Your task to perform on an android device: check the backup settings in the google photos Image 0: 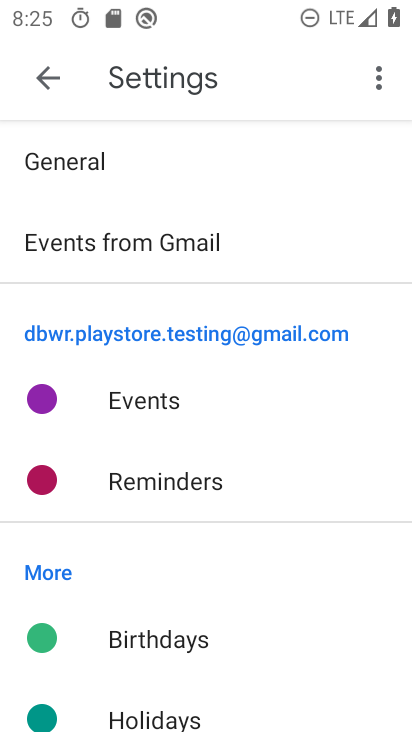
Step 0: press home button
Your task to perform on an android device: check the backup settings in the google photos Image 1: 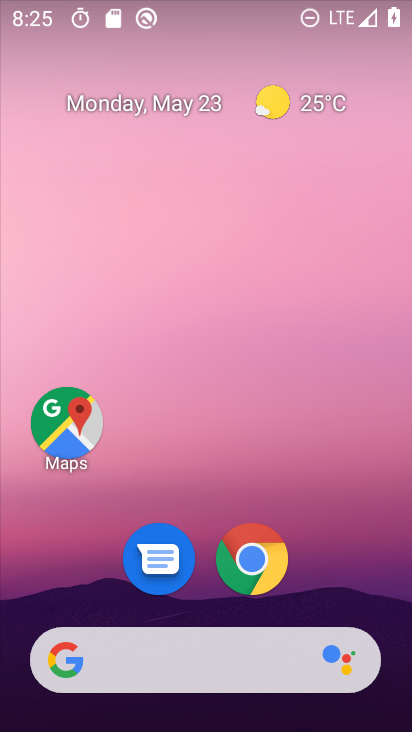
Step 1: drag from (381, 662) to (247, 64)
Your task to perform on an android device: check the backup settings in the google photos Image 2: 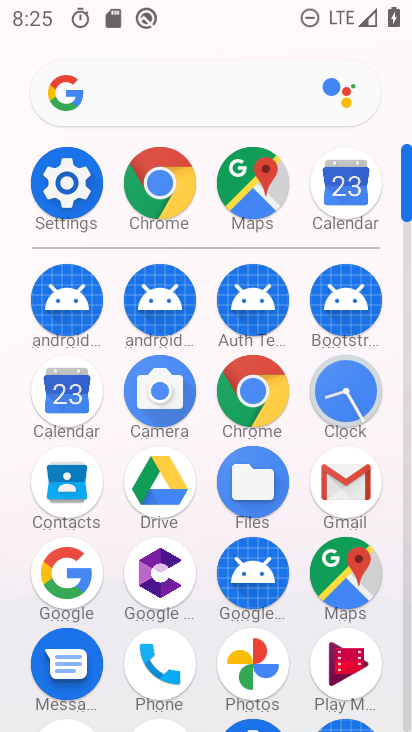
Step 2: click (261, 658)
Your task to perform on an android device: check the backup settings in the google photos Image 3: 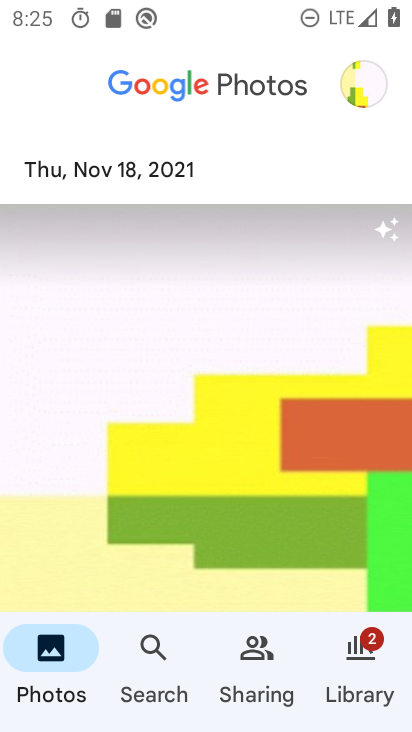
Step 3: click (370, 104)
Your task to perform on an android device: check the backup settings in the google photos Image 4: 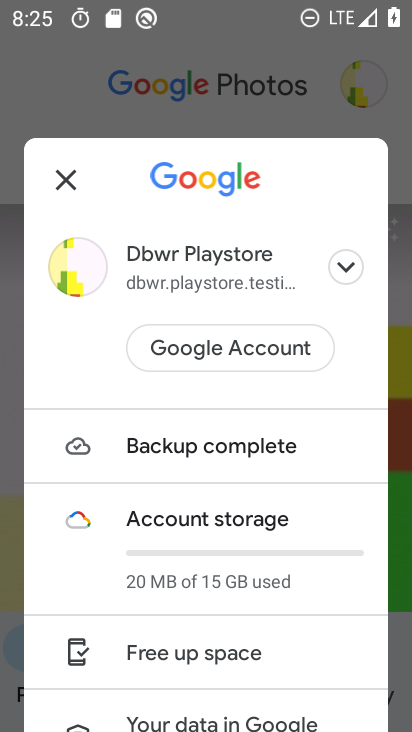
Step 4: click (192, 471)
Your task to perform on an android device: check the backup settings in the google photos Image 5: 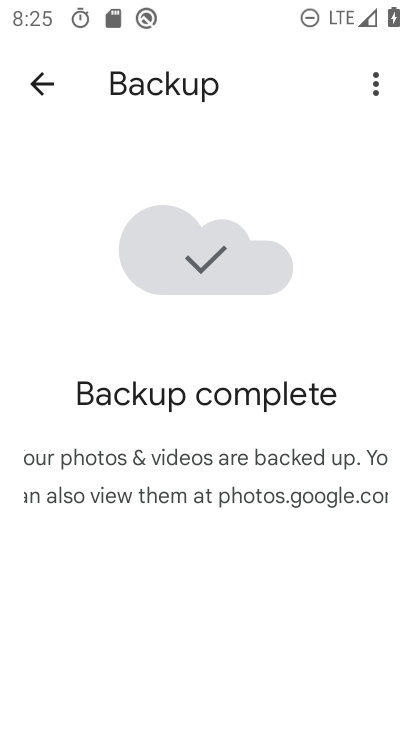
Step 5: task complete